Your task to perform on an android device: Turn on the flashlight Image 0: 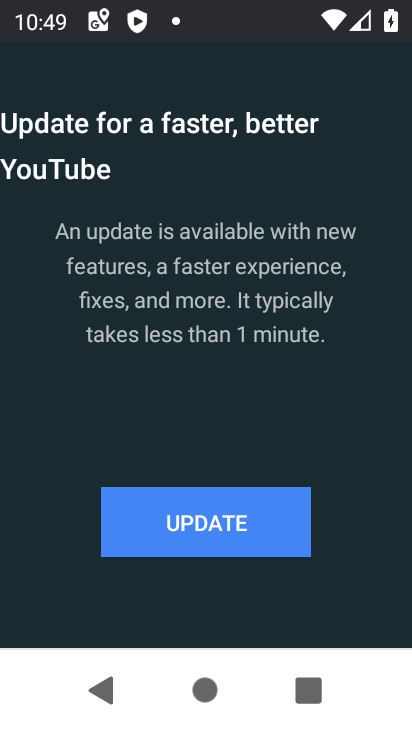
Step 0: press home button
Your task to perform on an android device: Turn on the flashlight Image 1: 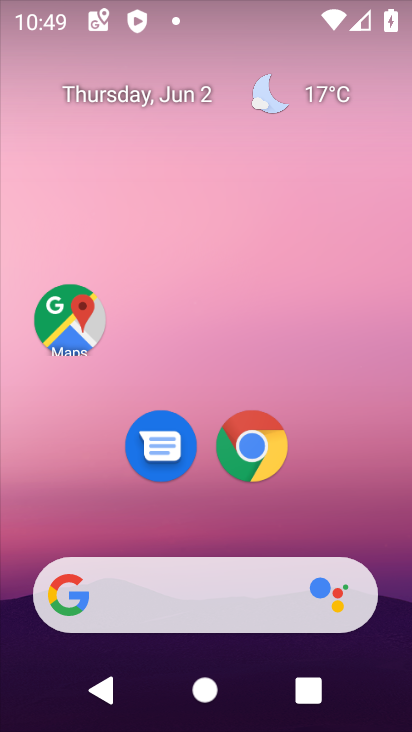
Step 1: drag from (348, 491) to (282, 93)
Your task to perform on an android device: Turn on the flashlight Image 2: 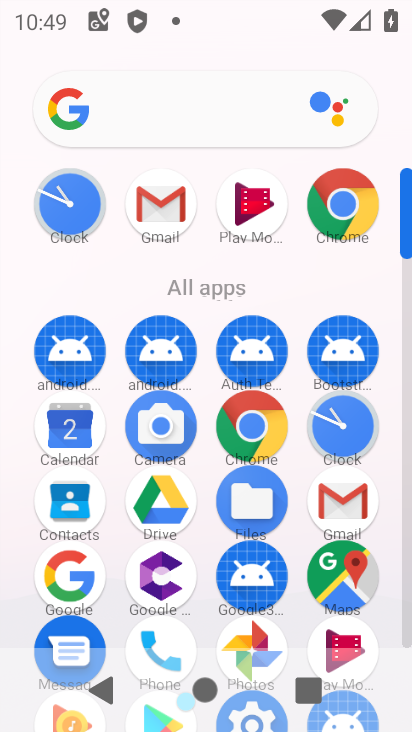
Step 2: drag from (304, 590) to (319, 171)
Your task to perform on an android device: Turn on the flashlight Image 3: 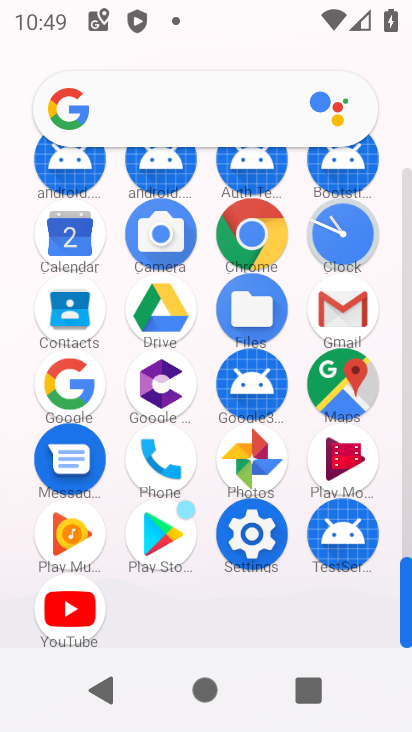
Step 3: click (254, 548)
Your task to perform on an android device: Turn on the flashlight Image 4: 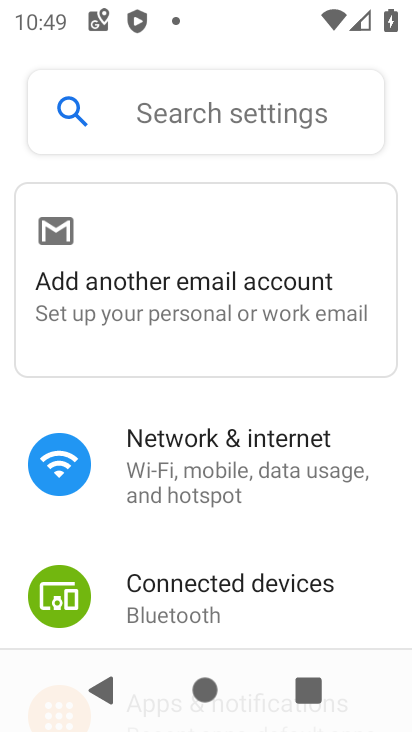
Step 4: drag from (252, 549) to (293, 222)
Your task to perform on an android device: Turn on the flashlight Image 5: 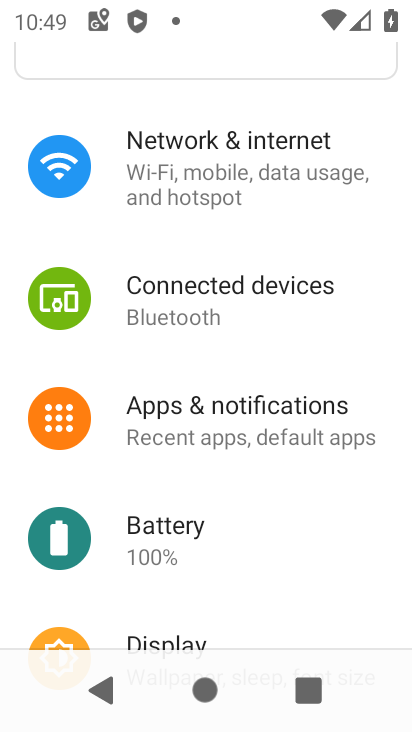
Step 5: drag from (258, 529) to (299, 206)
Your task to perform on an android device: Turn on the flashlight Image 6: 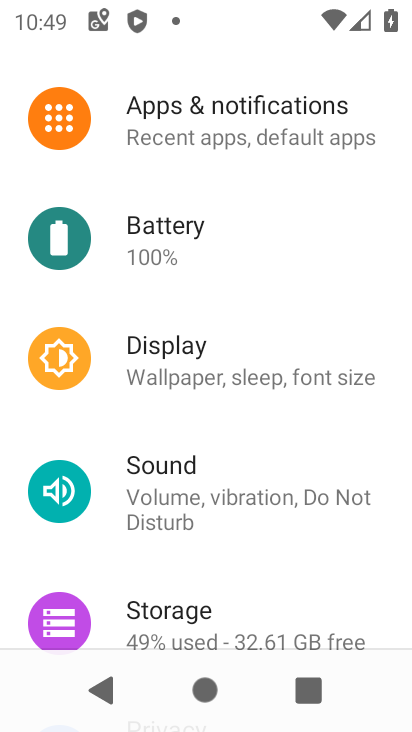
Step 6: click (210, 346)
Your task to perform on an android device: Turn on the flashlight Image 7: 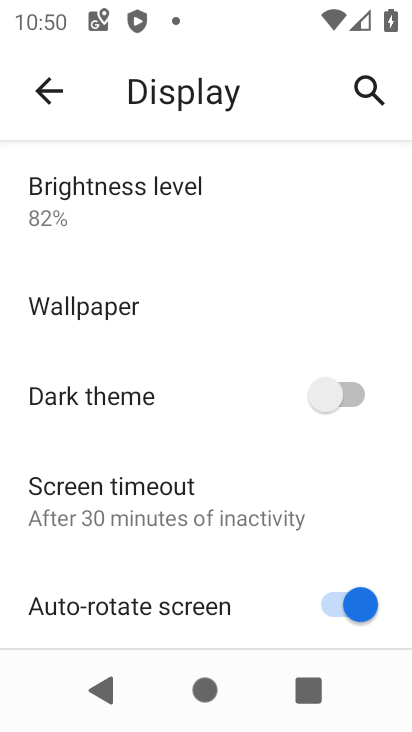
Step 7: task complete